Your task to perform on an android device: Go to location settings Image 0: 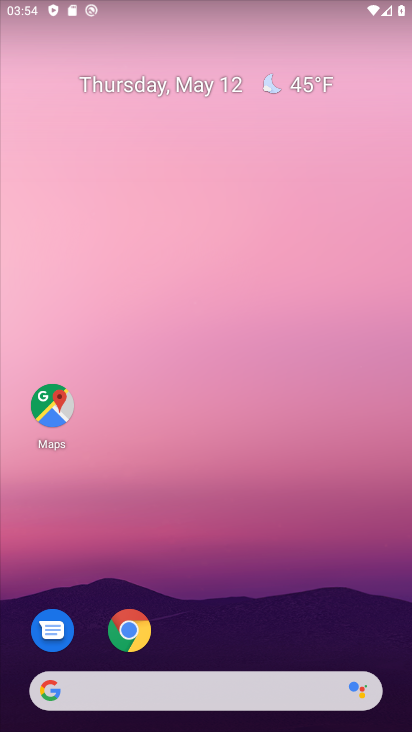
Step 0: drag from (235, 623) to (273, 119)
Your task to perform on an android device: Go to location settings Image 1: 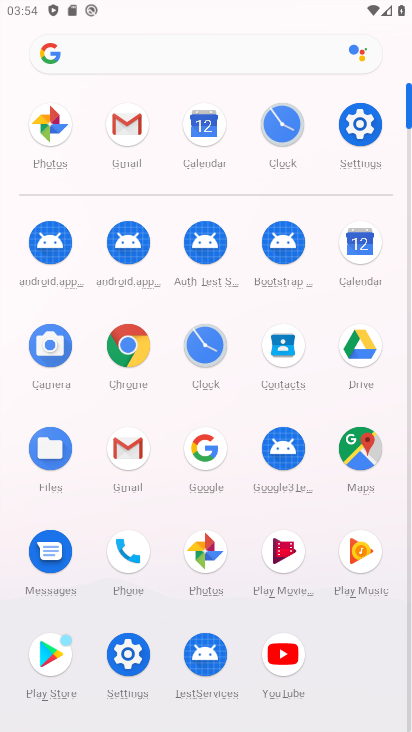
Step 1: click (116, 665)
Your task to perform on an android device: Go to location settings Image 2: 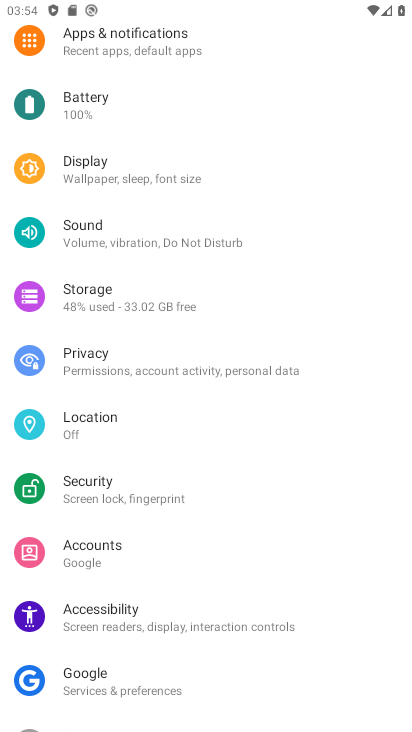
Step 2: click (106, 431)
Your task to perform on an android device: Go to location settings Image 3: 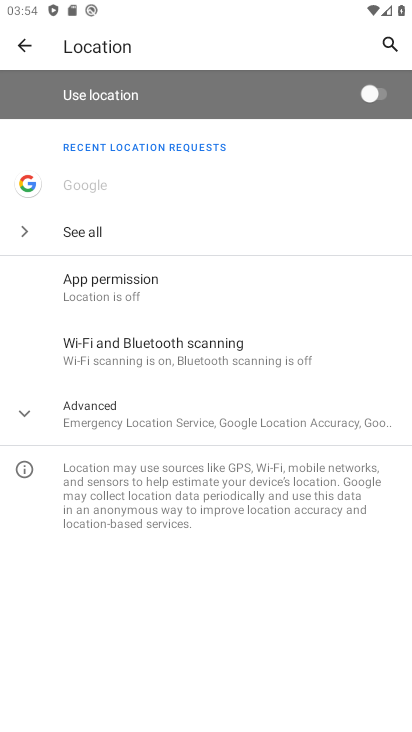
Step 3: drag from (242, 438) to (266, 271)
Your task to perform on an android device: Go to location settings Image 4: 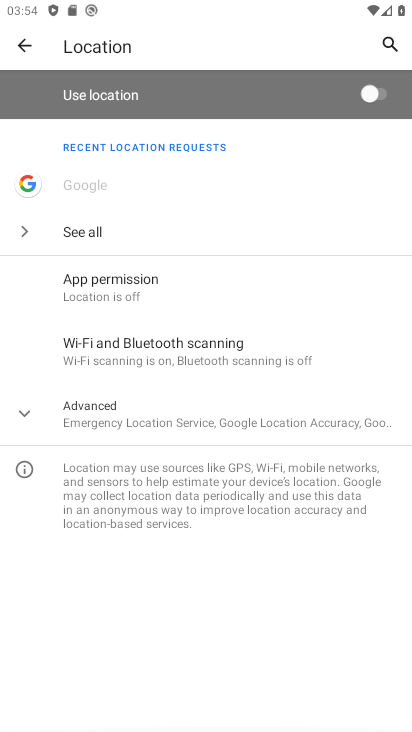
Step 4: click (158, 419)
Your task to perform on an android device: Go to location settings Image 5: 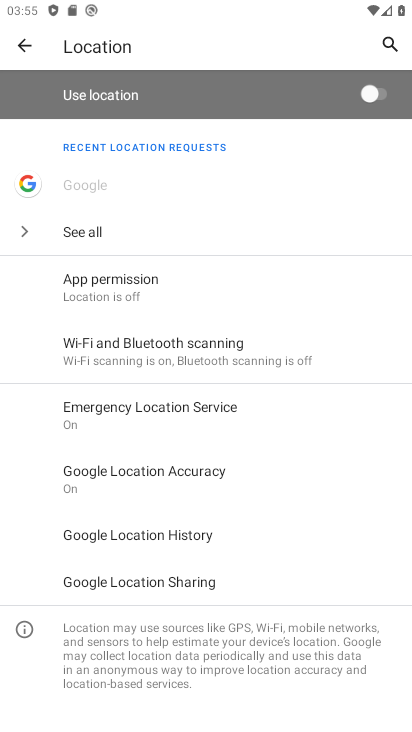
Step 5: task complete